Your task to perform on an android device: open app "Instagram" (install if not already installed) and go to login screen Image 0: 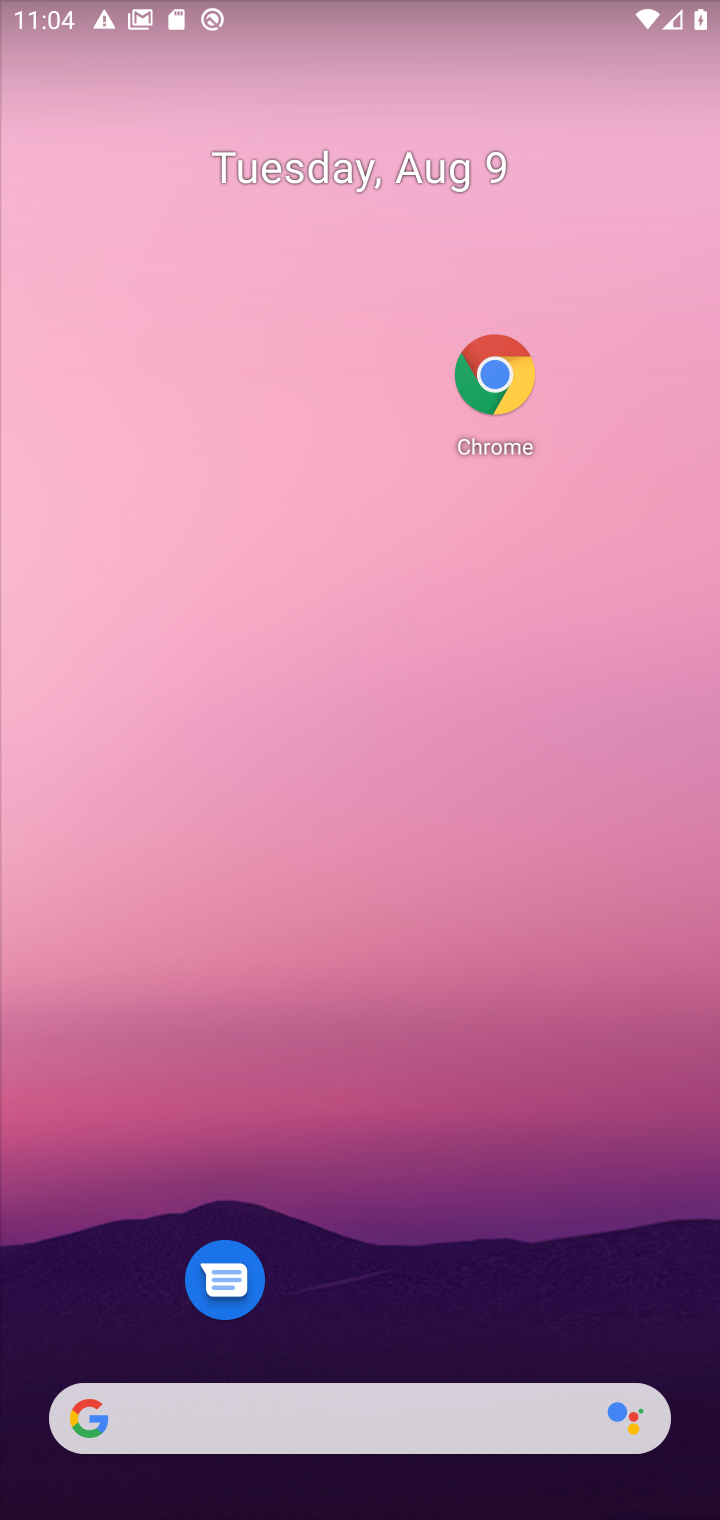
Step 0: drag from (439, 1316) to (368, 56)
Your task to perform on an android device: open app "Instagram" (install if not already installed) and go to login screen Image 1: 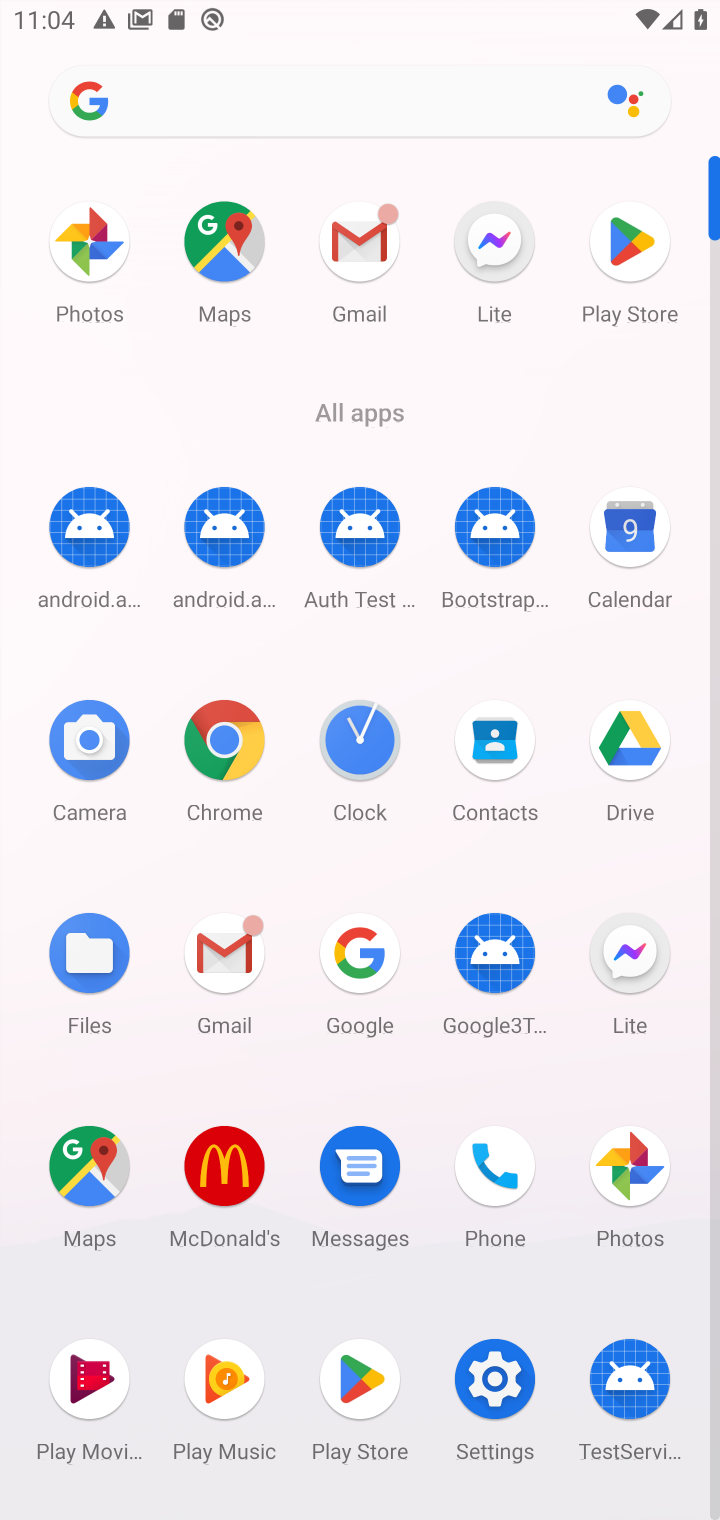
Step 1: click (371, 1387)
Your task to perform on an android device: open app "Instagram" (install if not already installed) and go to login screen Image 2: 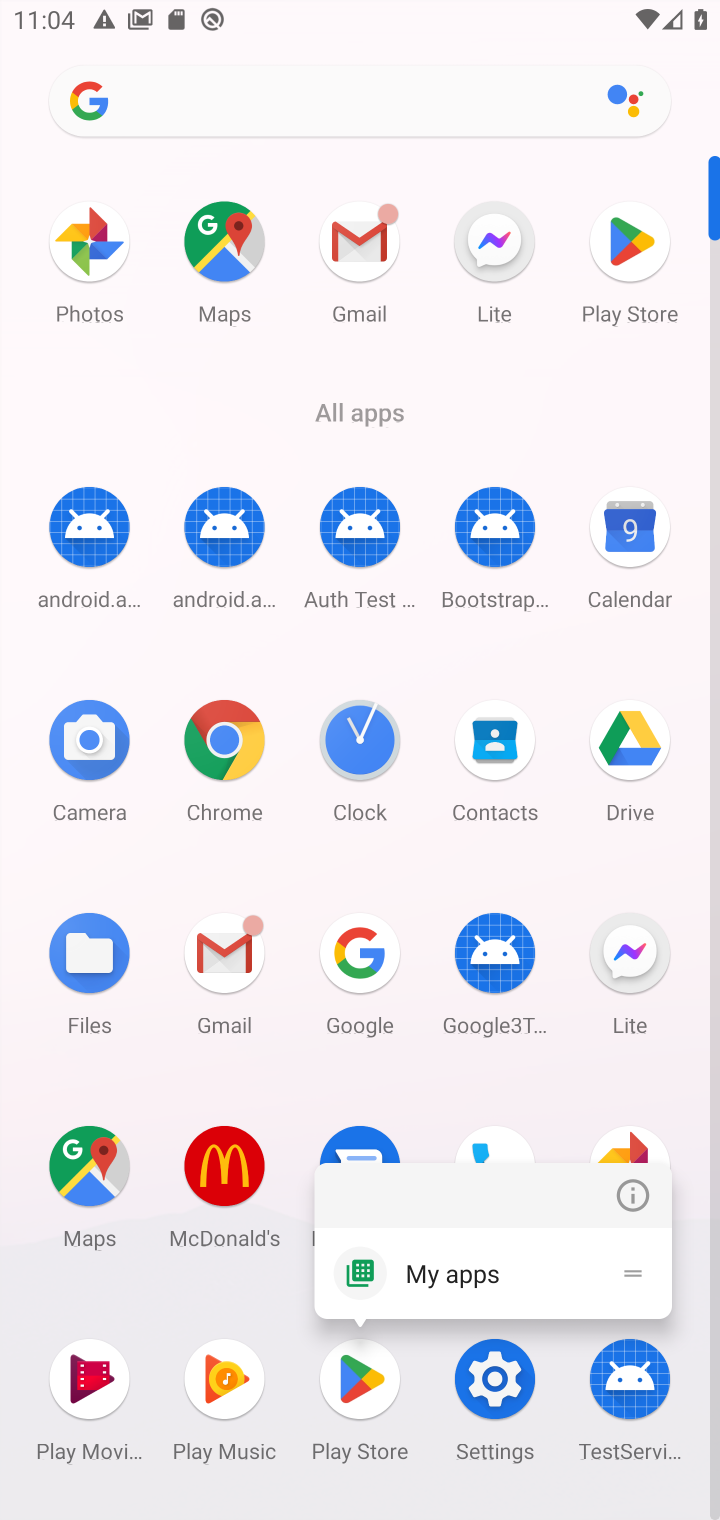
Step 2: click (369, 1385)
Your task to perform on an android device: open app "Instagram" (install if not already installed) and go to login screen Image 3: 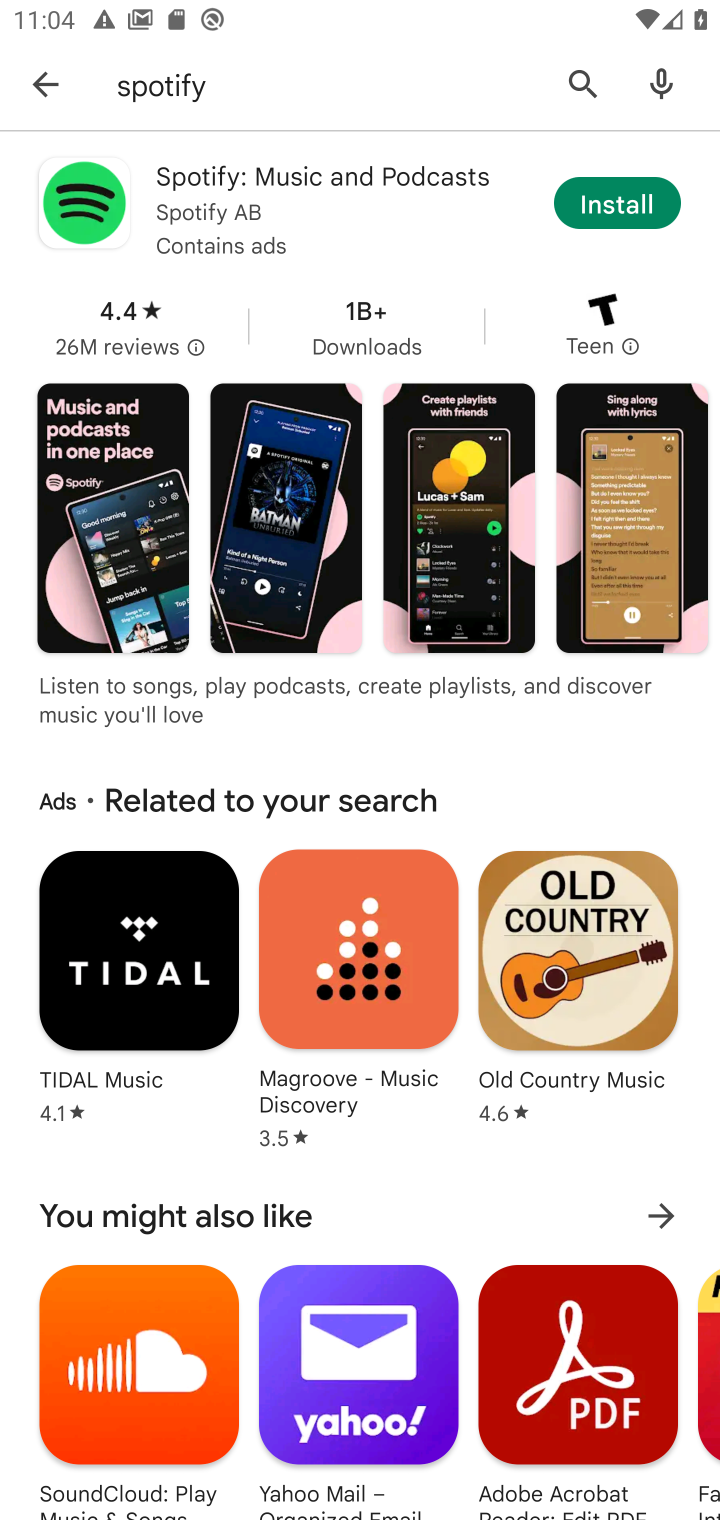
Step 3: click (49, 94)
Your task to perform on an android device: open app "Instagram" (install if not already installed) and go to login screen Image 4: 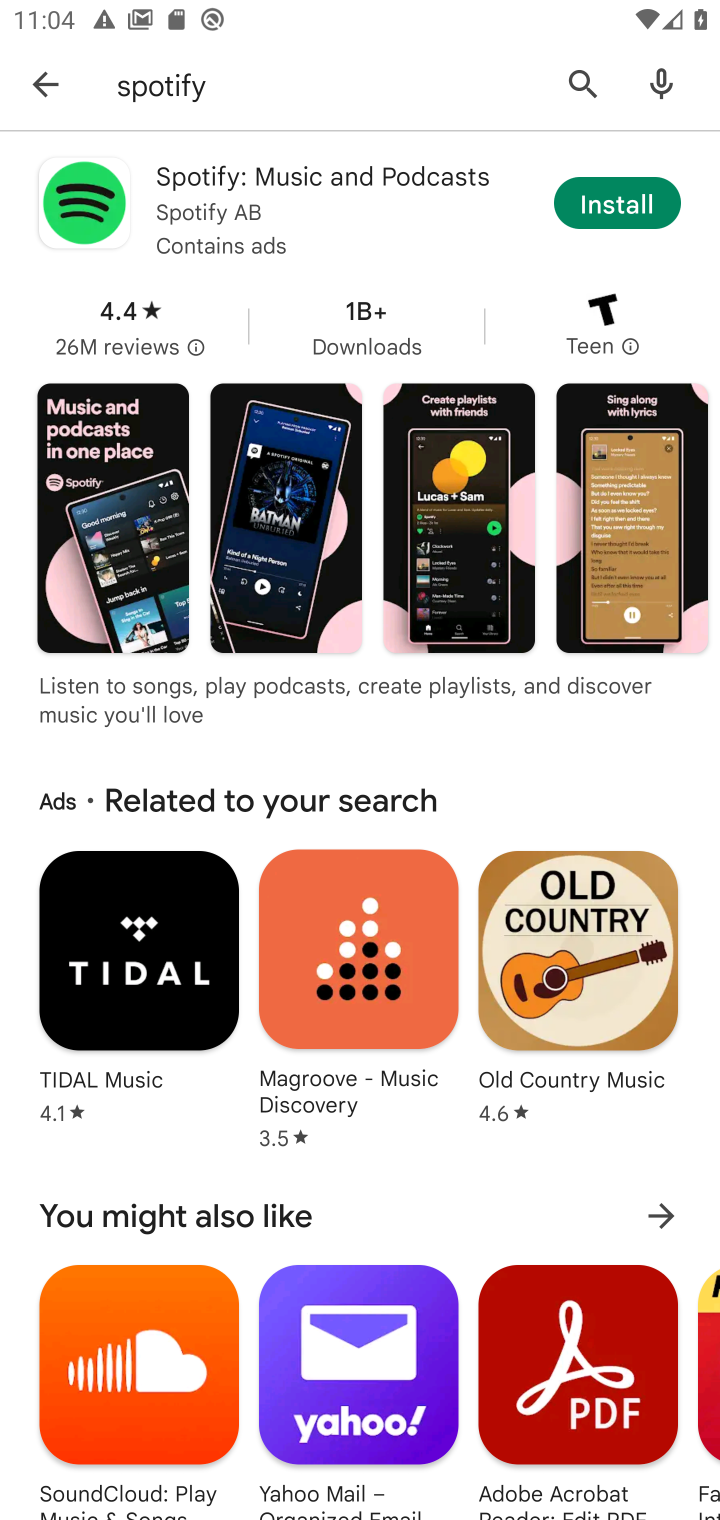
Step 4: click (28, 94)
Your task to perform on an android device: open app "Instagram" (install if not already installed) and go to login screen Image 5: 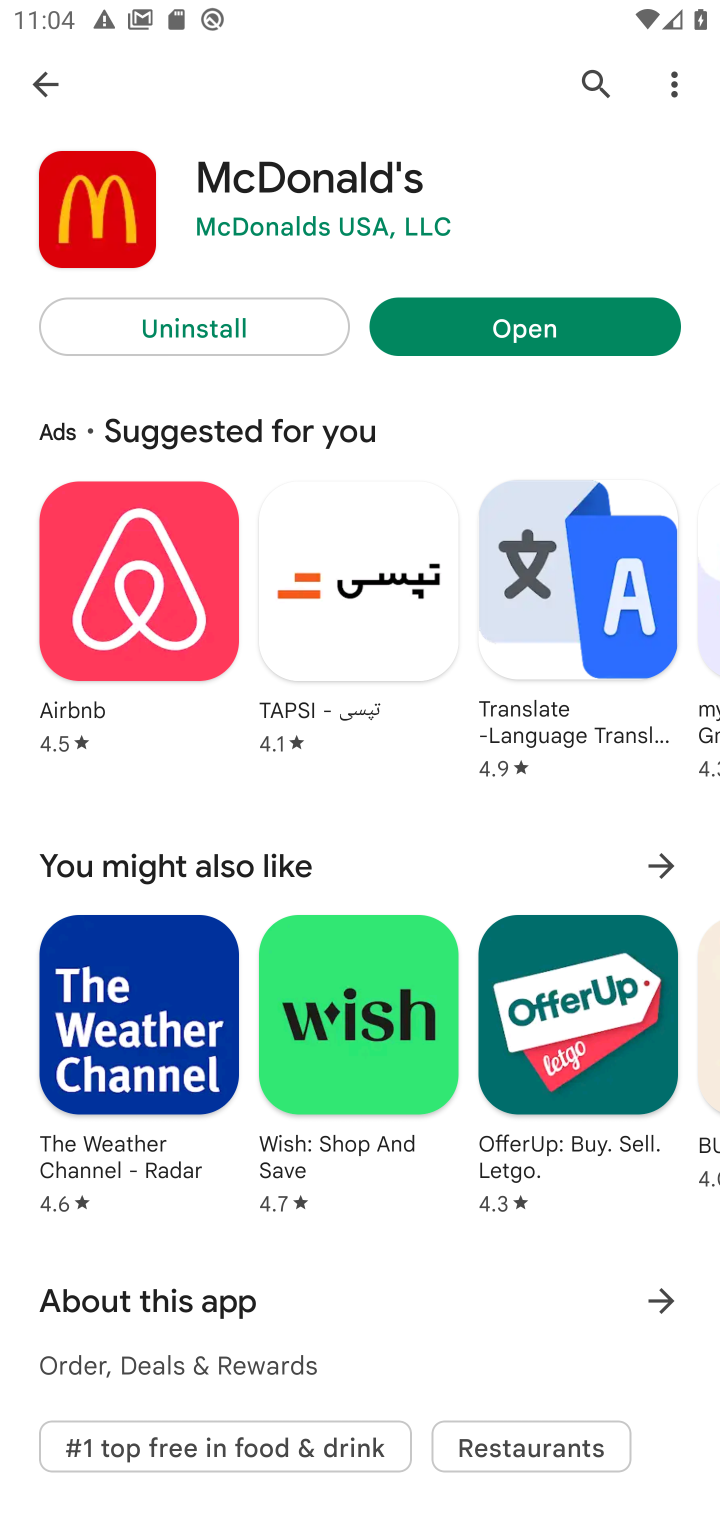
Step 5: click (37, 75)
Your task to perform on an android device: open app "Instagram" (install if not already installed) and go to login screen Image 6: 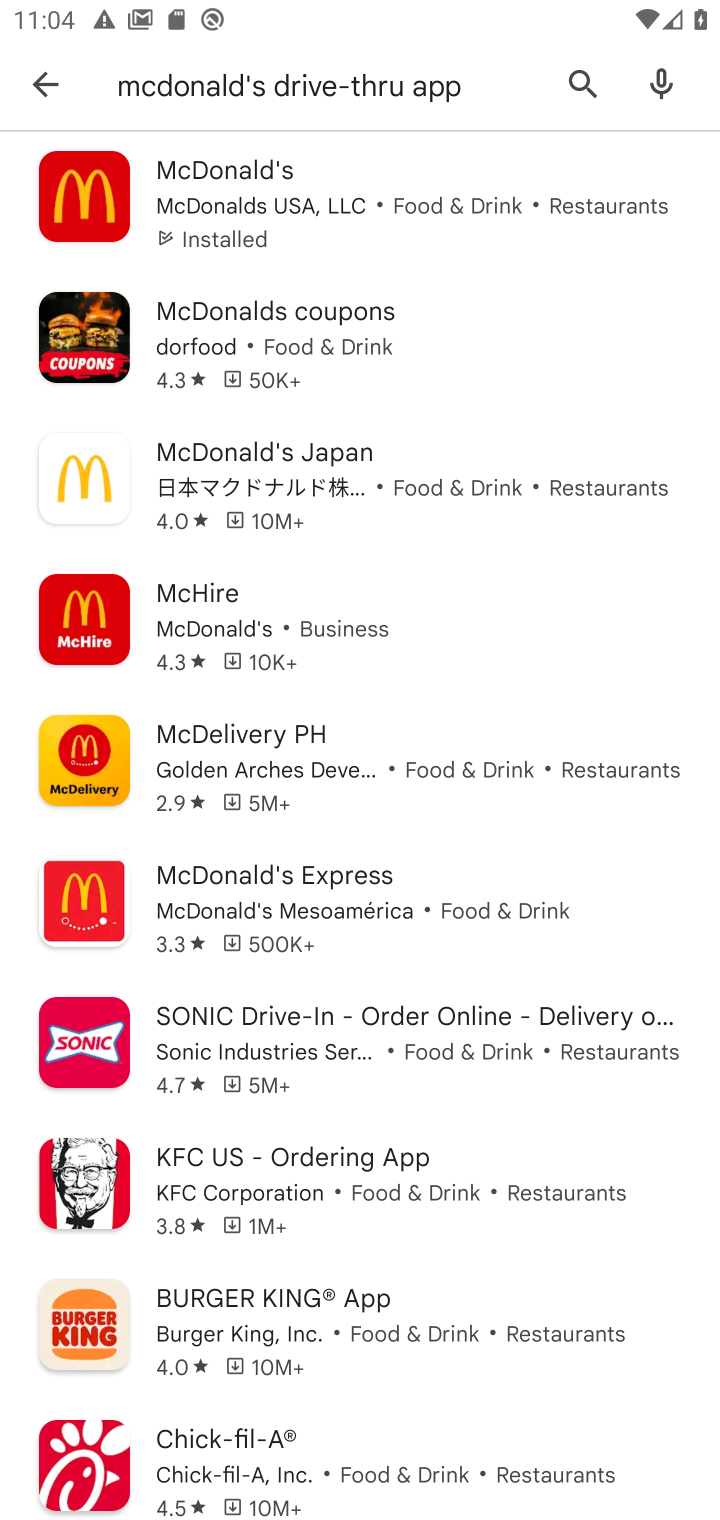
Step 6: click (46, 69)
Your task to perform on an android device: open app "Instagram" (install if not already installed) and go to login screen Image 7: 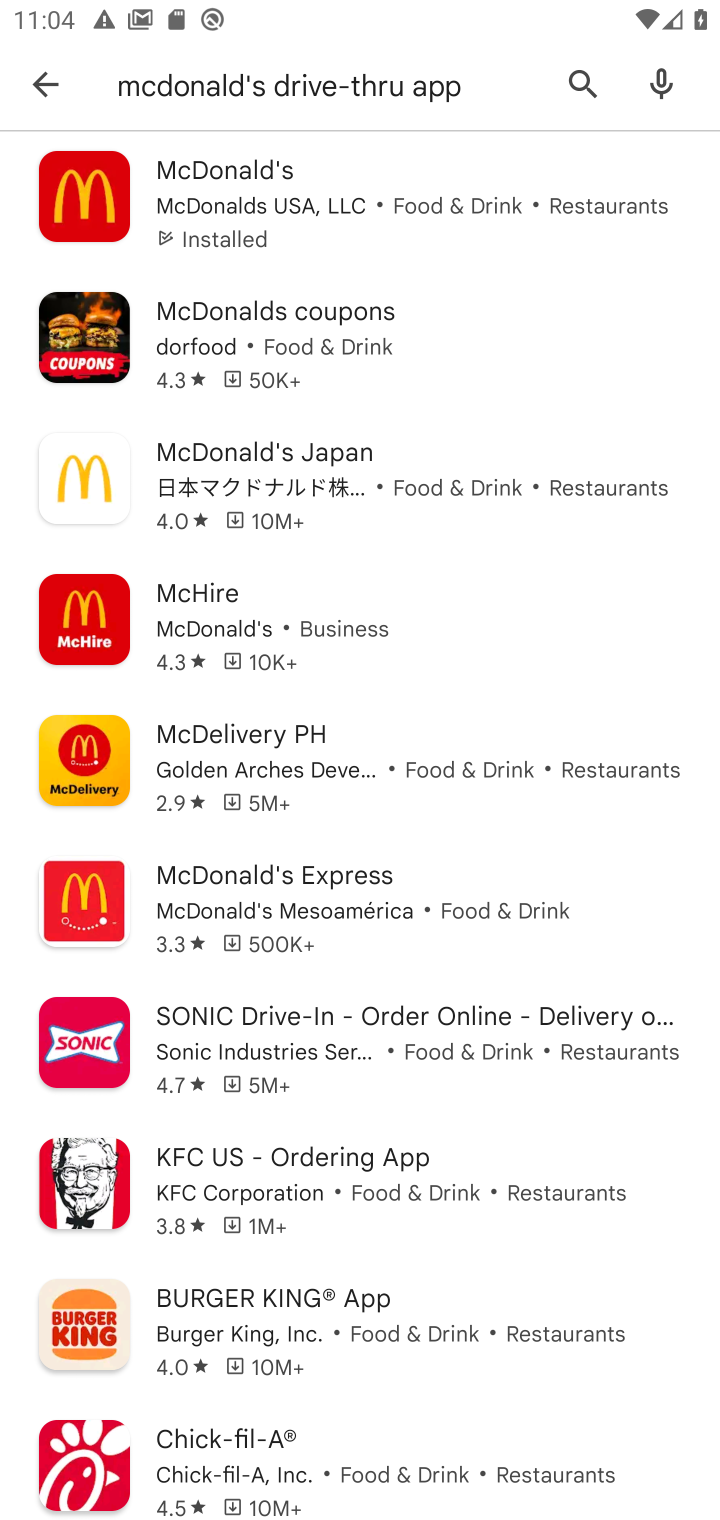
Step 7: click (63, 84)
Your task to perform on an android device: open app "Instagram" (install if not already installed) and go to login screen Image 8: 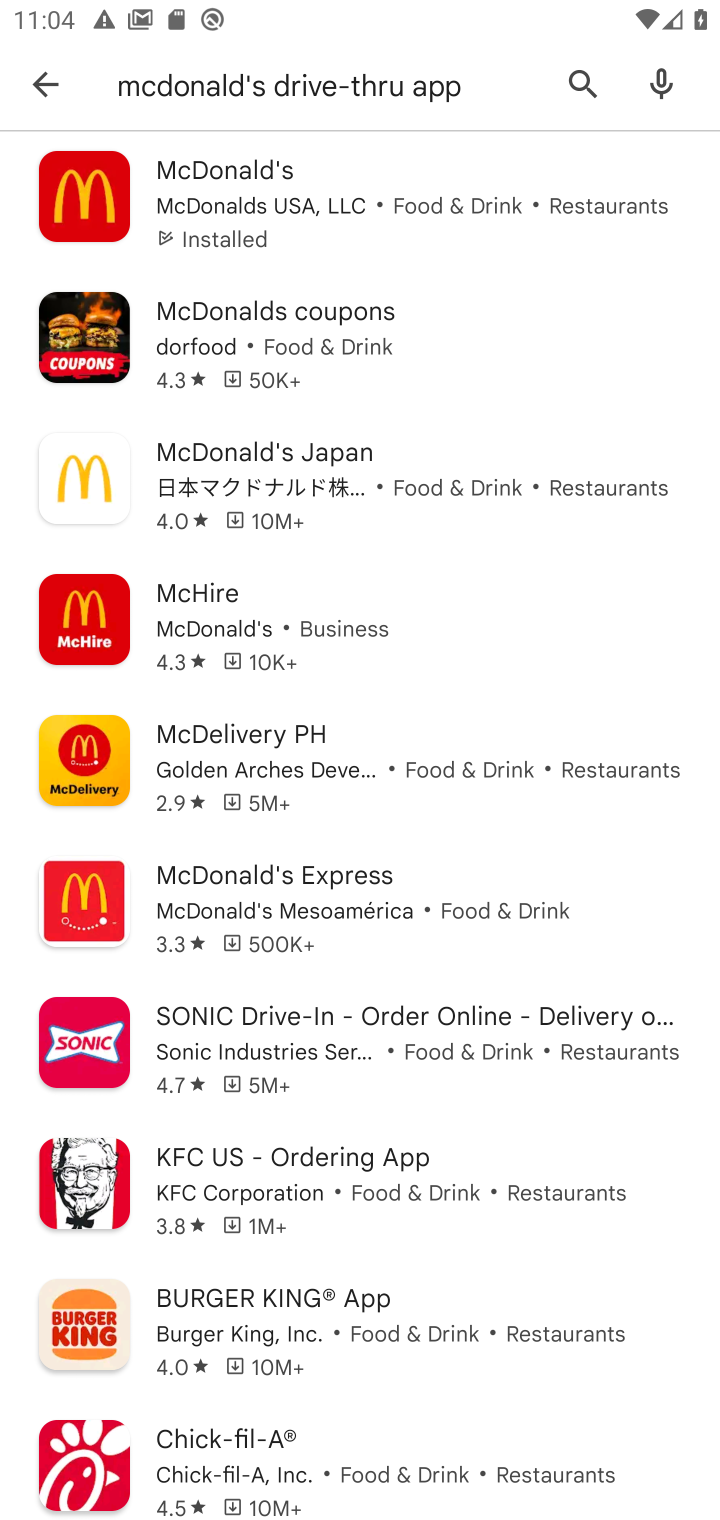
Step 8: click (61, 84)
Your task to perform on an android device: open app "Instagram" (install if not already installed) and go to login screen Image 9: 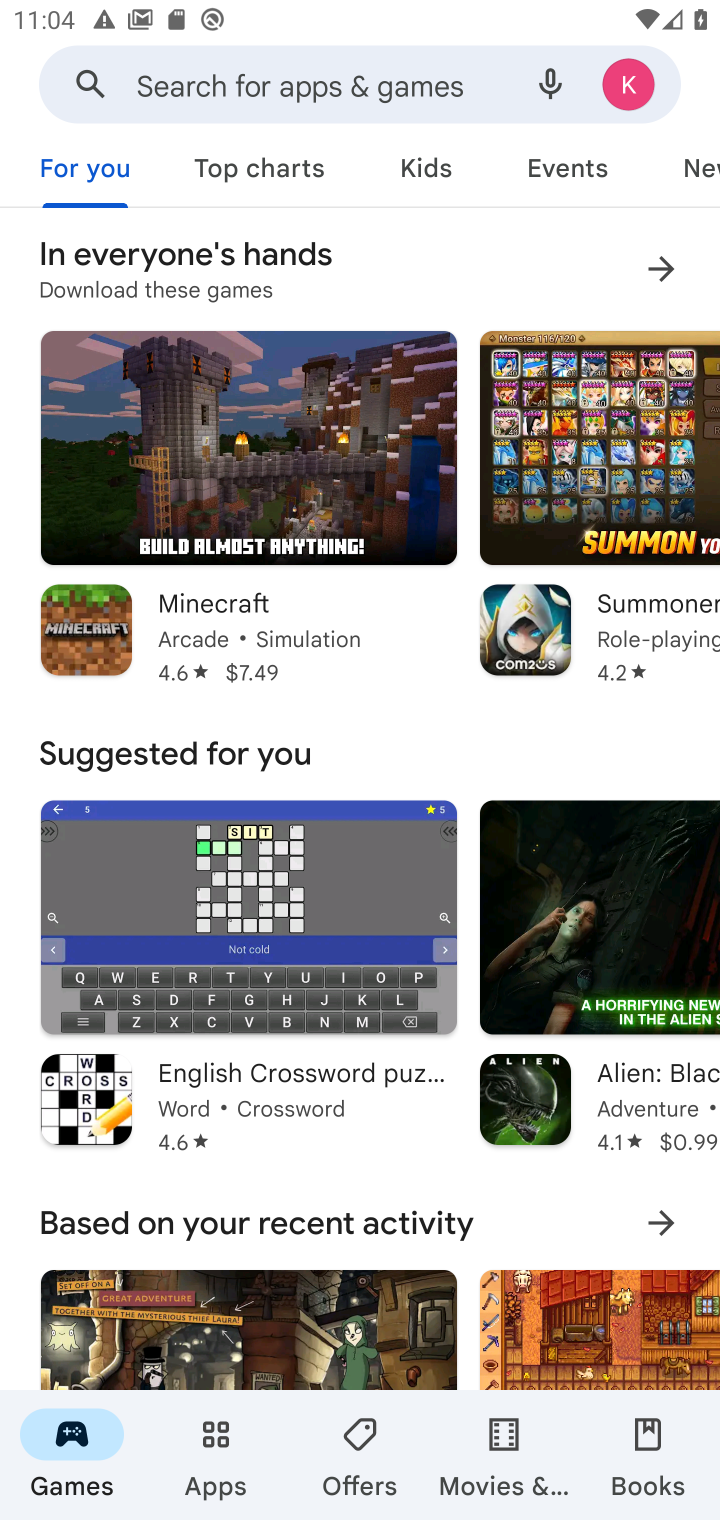
Step 9: click (249, 96)
Your task to perform on an android device: open app "Instagram" (install if not already installed) and go to login screen Image 10: 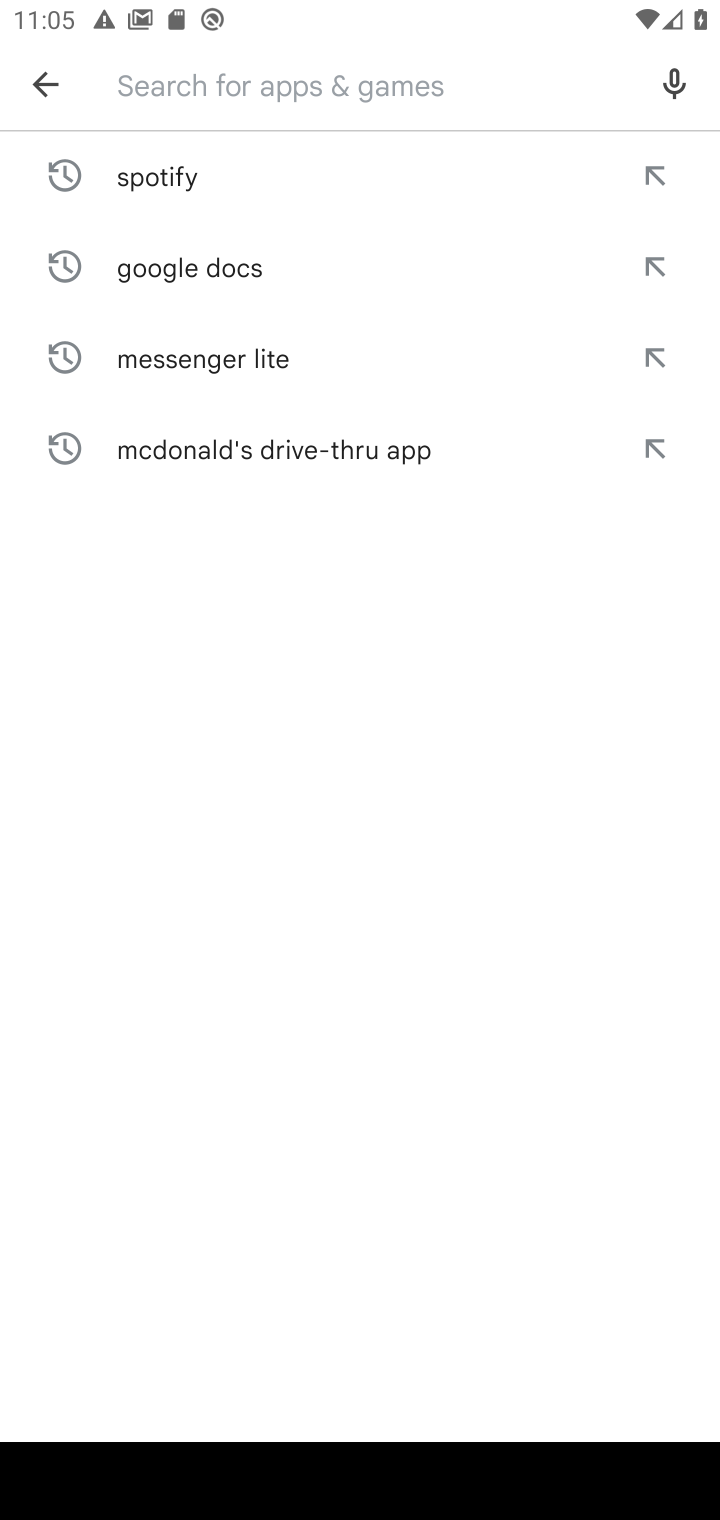
Step 10: type "Instagram"
Your task to perform on an android device: open app "Instagram" (install if not already installed) and go to login screen Image 11: 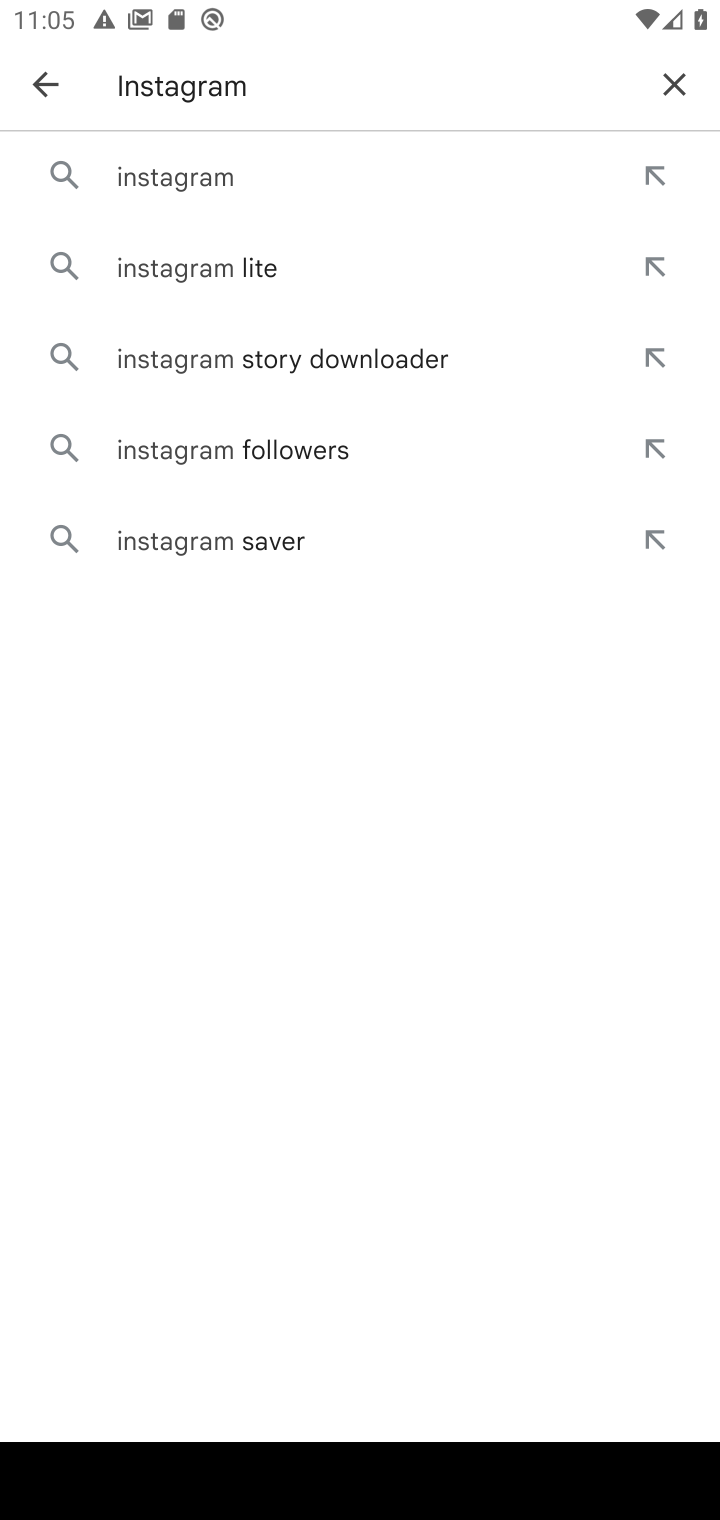
Step 11: click (167, 171)
Your task to perform on an android device: open app "Instagram" (install if not already installed) and go to login screen Image 12: 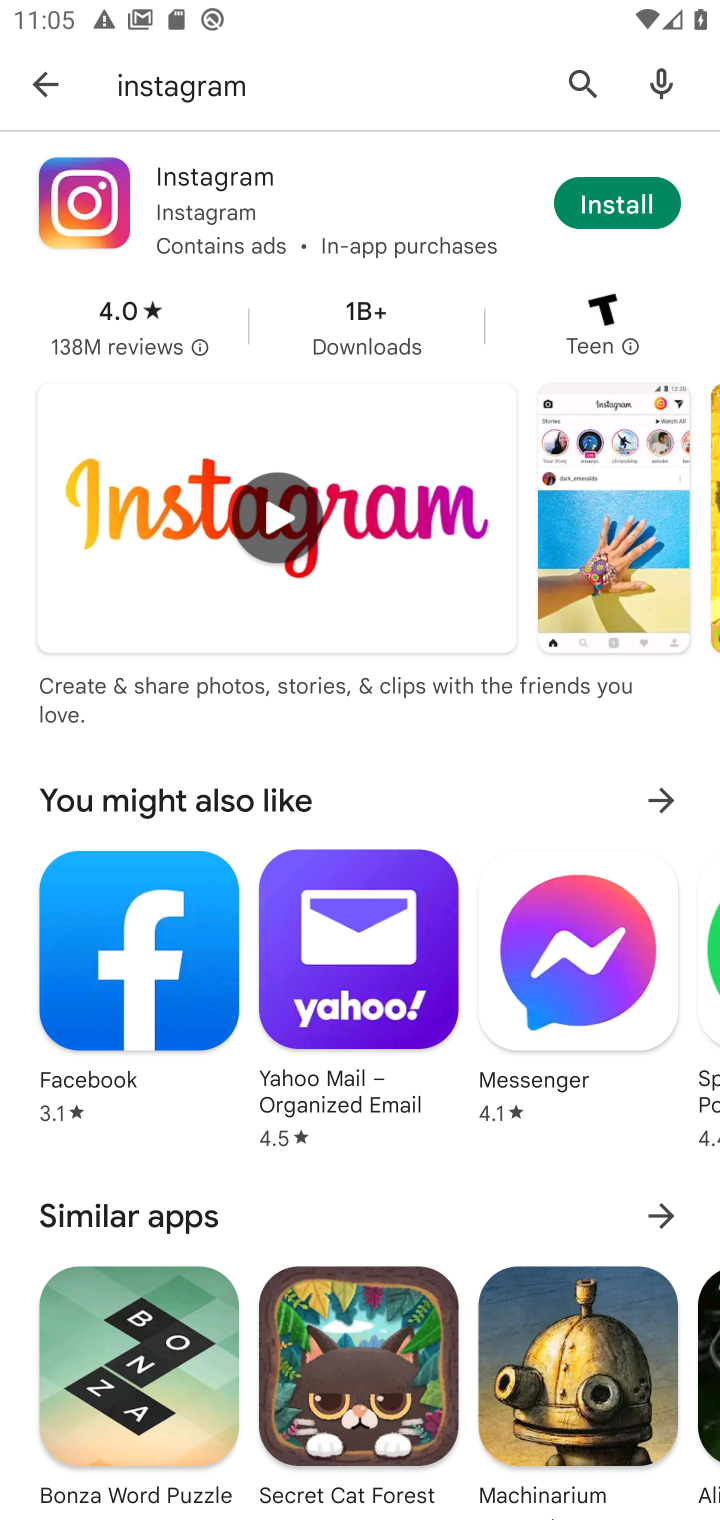
Step 12: click (575, 211)
Your task to perform on an android device: open app "Instagram" (install if not already installed) and go to login screen Image 13: 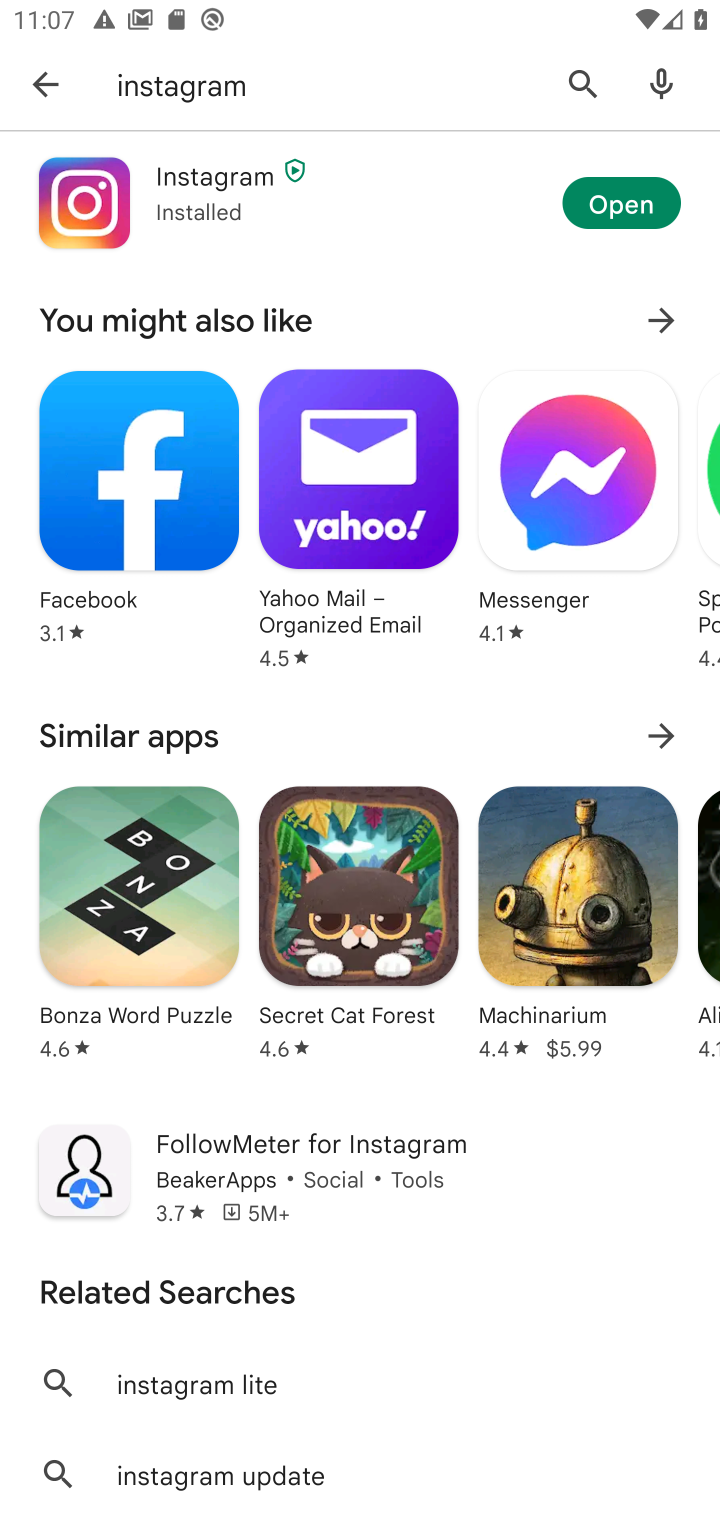
Step 13: click (586, 219)
Your task to perform on an android device: open app "Instagram" (install if not already installed) and go to login screen Image 14: 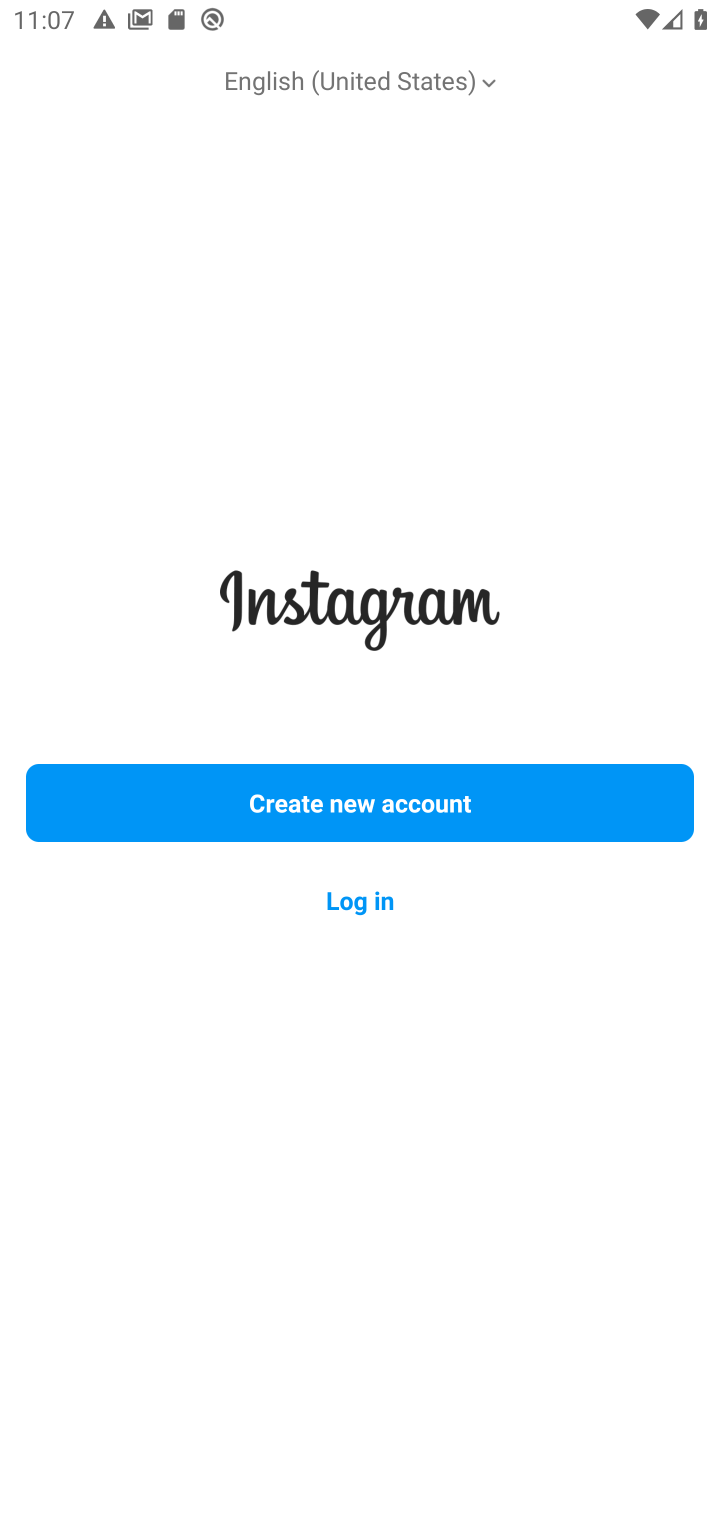
Step 14: click (348, 919)
Your task to perform on an android device: open app "Instagram" (install if not already installed) and go to login screen Image 15: 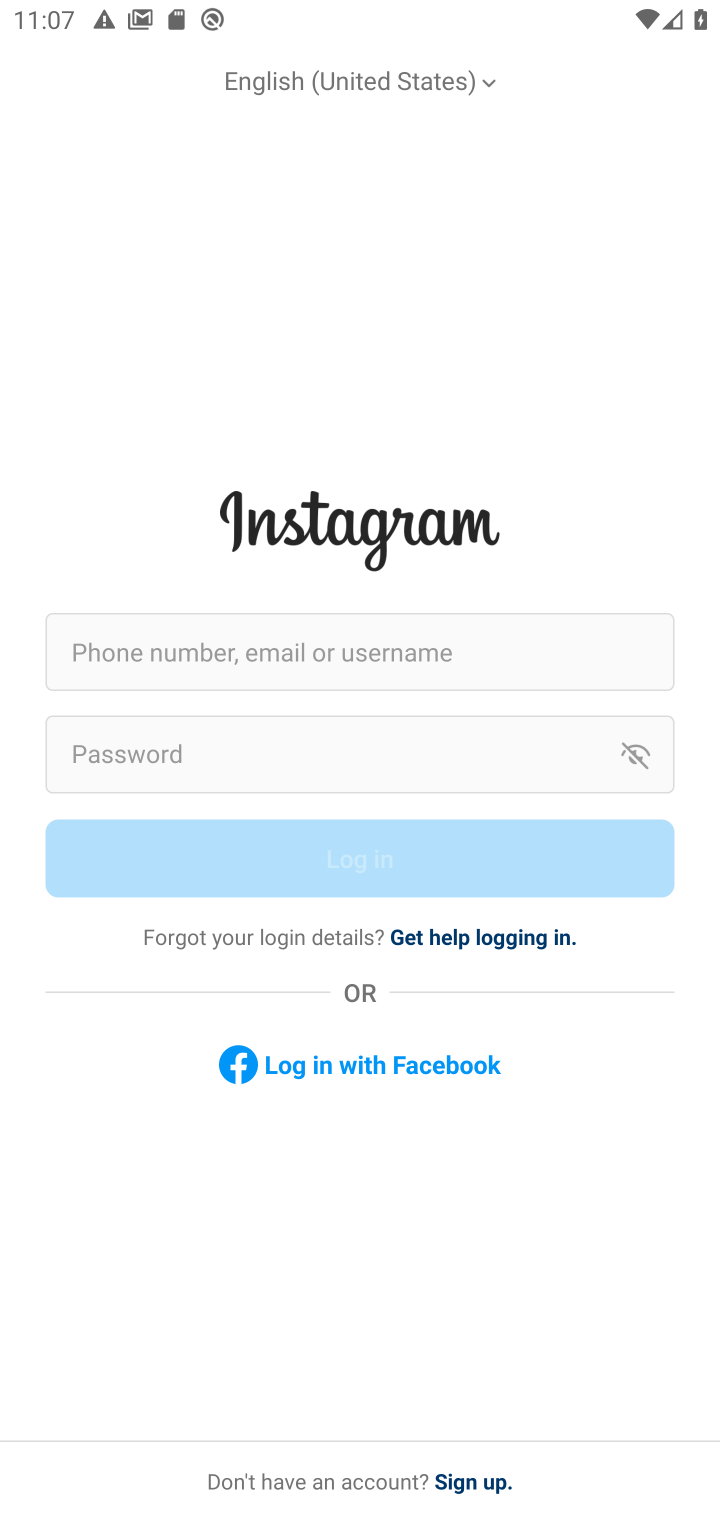
Step 15: task complete